Your task to perform on an android device: turn pop-ups on in chrome Image 0: 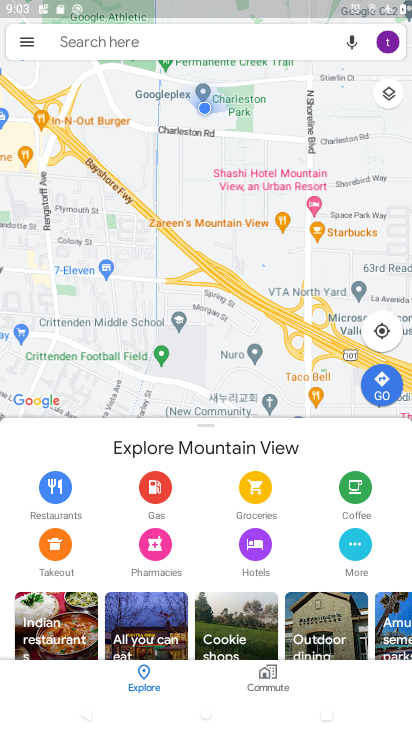
Step 0: press home button
Your task to perform on an android device: turn pop-ups on in chrome Image 1: 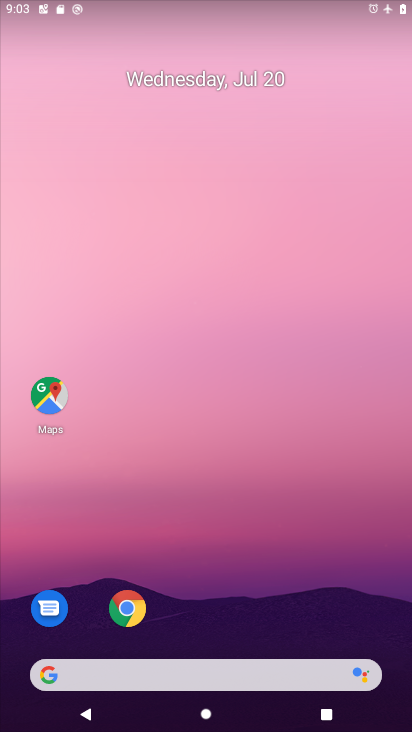
Step 1: click (113, 605)
Your task to perform on an android device: turn pop-ups on in chrome Image 2: 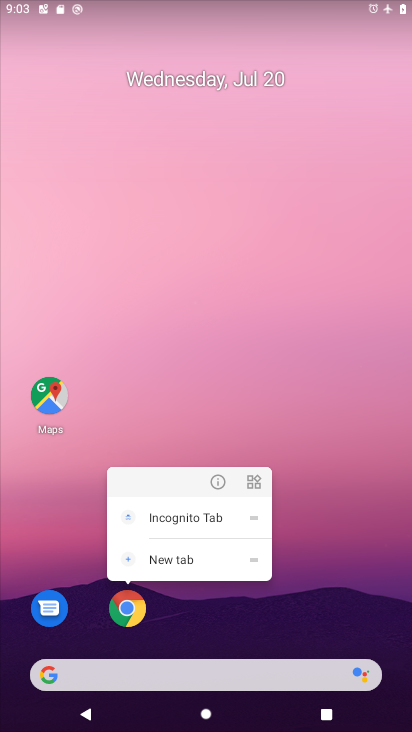
Step 2: click (129, 608)
Your task to perform on an android device: turn pop-ups on in chrome Image 3: 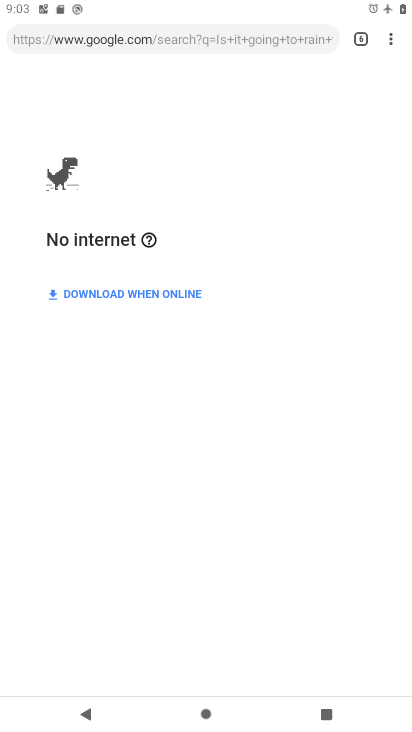
Step 3: click (390, 32)
Your task to perform on an android device: turn pop-ups on in chrome Image 4: 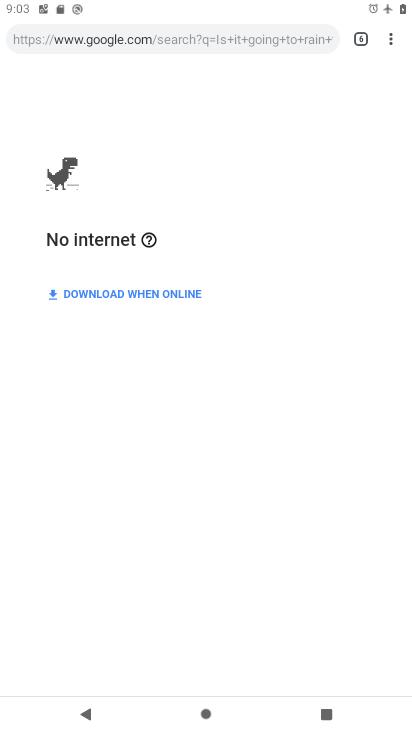
Step 4: click (394, 29)
Your task to perform on an android device: turn pop-ups on in chrome Image 5: 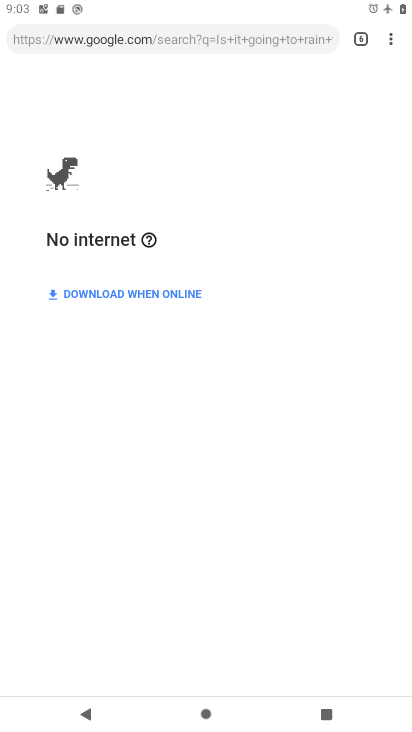
Step 5: click (393, 31)
Your task to perform on an android device: turn pop-ups on in chrome Image 6: 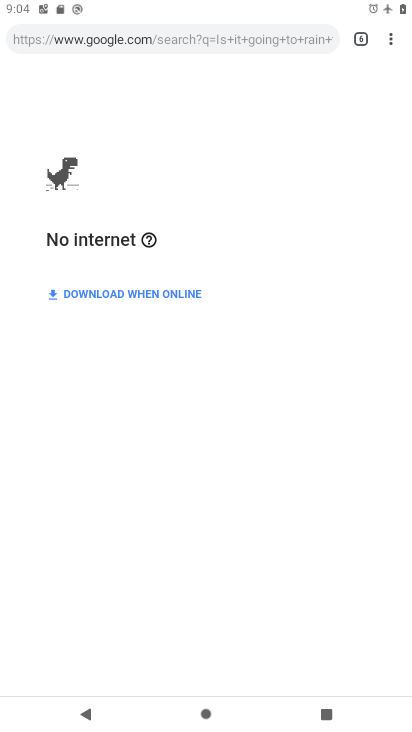
Step 6: click (389, 37)
Your task to perform on an android device: turn pop-ups on in chrome Image 7: 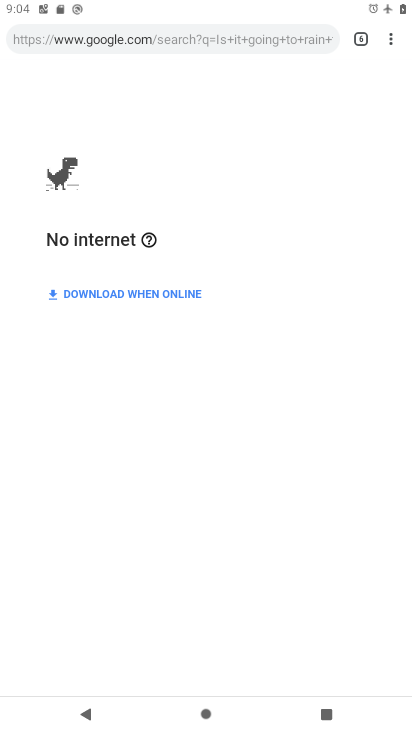
Step 7: click (398, 42)
Your task to perform on an android device: turn pop-ups on in chrome Image 8: 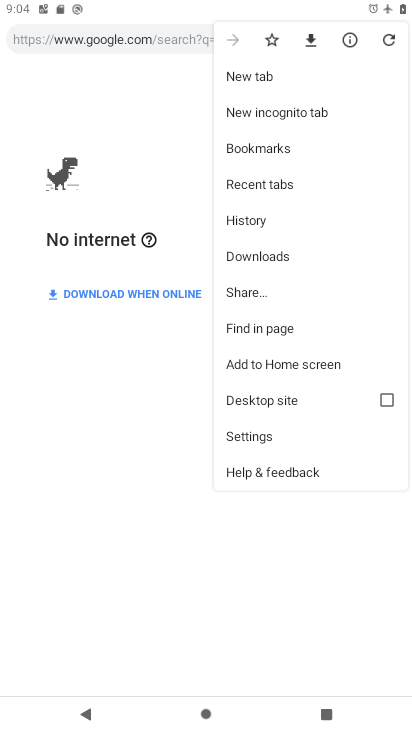
Step 8: click (288, 433)
Your task to perform on an android device: turn pop-ups on in chrome Image 9: 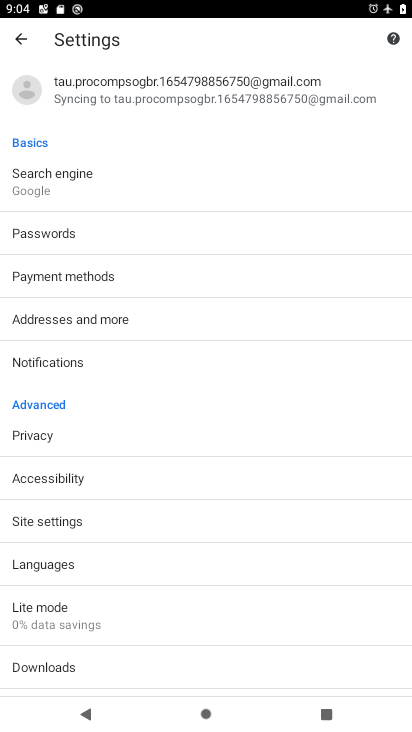
Step 9: click (101, 523)
Your task to perform on an android device: turn pop-ups on in chrome Image 10: 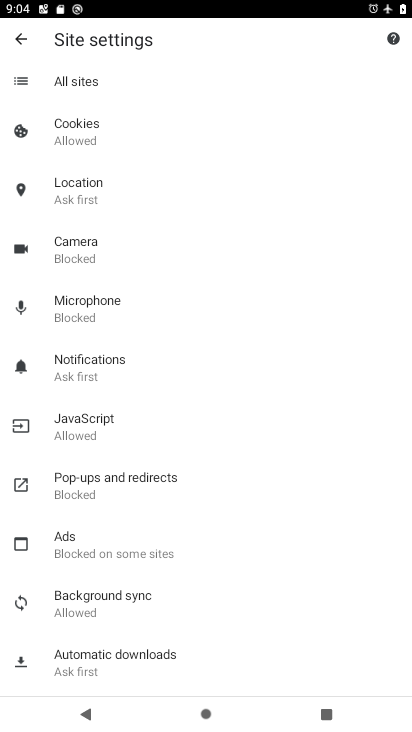
Step 10: click (121, 486)
Your task to perform on an android device: turn pop-ups on in chrome Image 11: 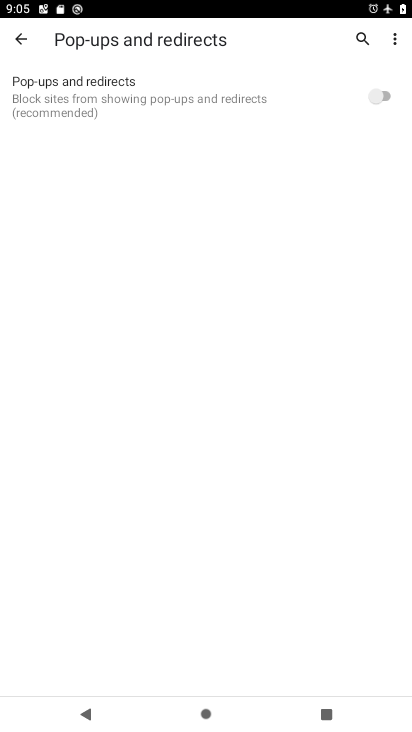
Step 11: click (393, 92)
Your task to perform on an android device: turn pop-ups on in chrome Image 12: 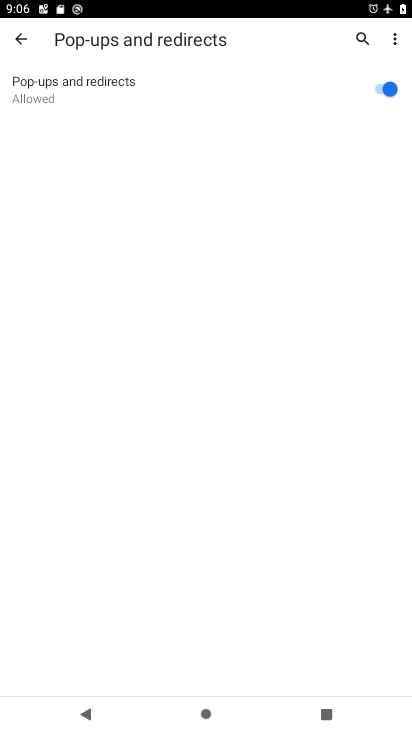
Step 12: task complete